Your task to perform on an android device: visit the assistant section in the google photos Image 0: 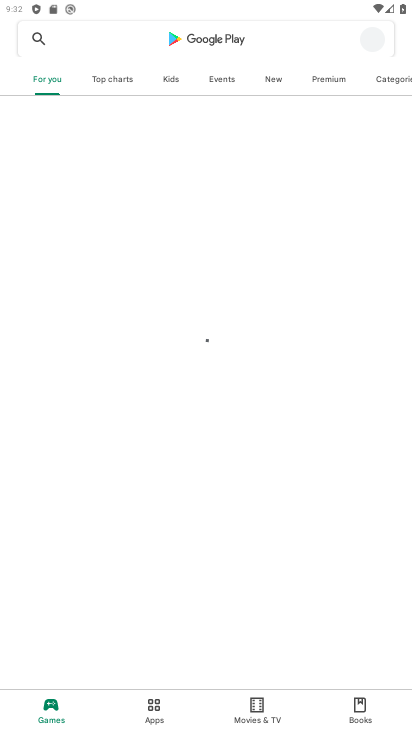
Step 0: press home button
Your task to perform on an android device: visit the assistant section in the google photos Image 1: 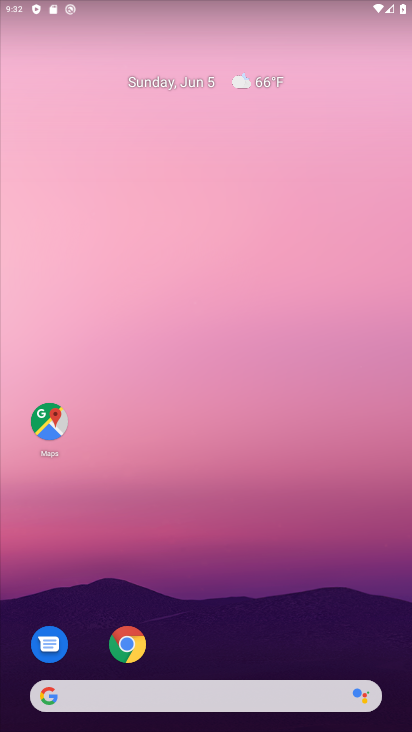
Step 1: drag from (221, 651) to (252, 83)
Your task to perform on an android device: visit the assistant section in the google photos Image 2: 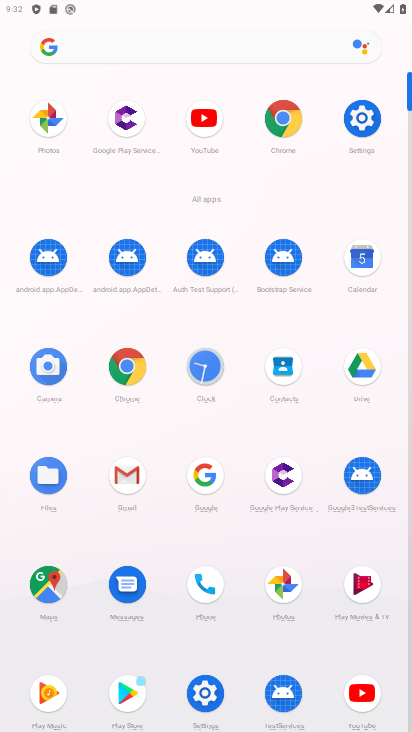
Step 2: click (276, 587)
Your task to perform on an android device: visit the assistant section in the google photos Image 3: 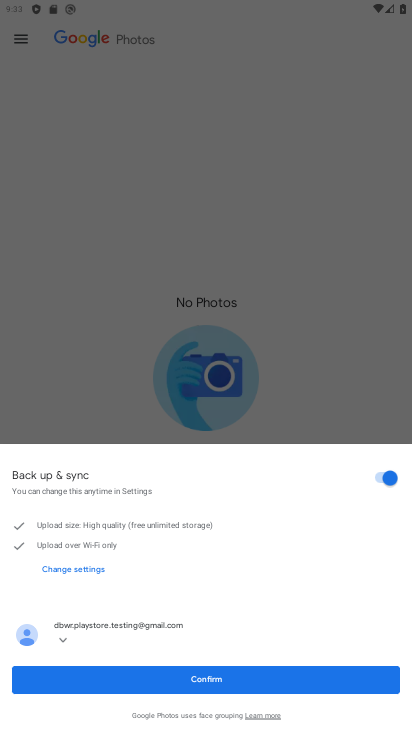
Step 3: drag from (208, 676) to (286, 677)
Your task to perform on an android device: visit the assistant section in the google photos Image 4: 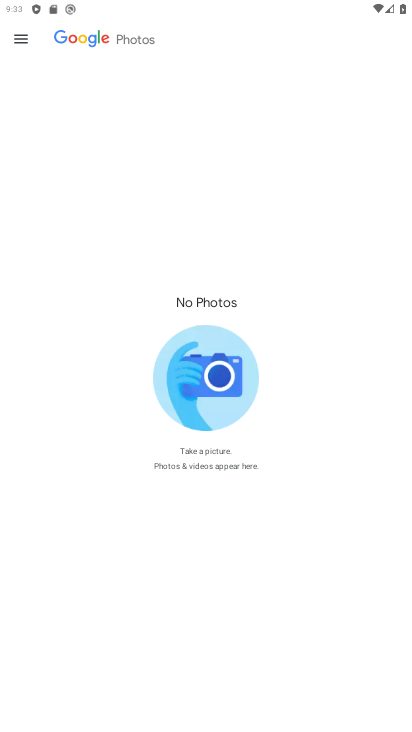
Step 4: click (22, 30)
Your task to perform on an android device: visit the assistant section in the google photos Image 5: 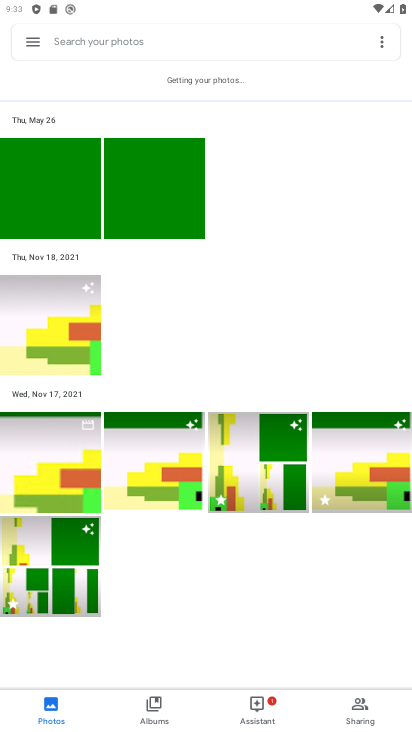
Step 5: click (258, 692)
Your task to perform on an android device: visit the assistant section in the google photos Image 6: 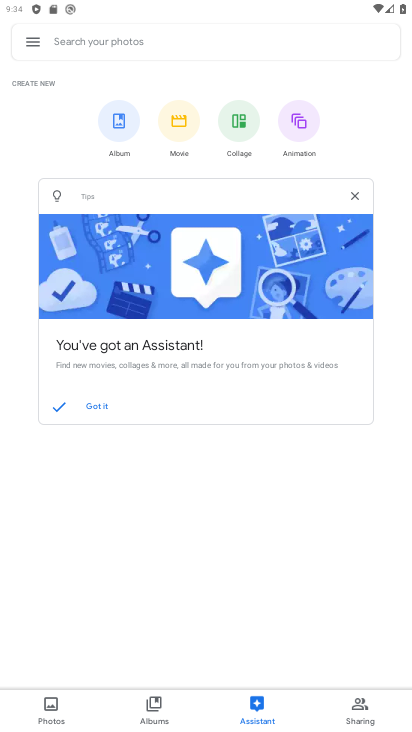
Step 6: task complete